Your task to perform on an android device: Open calendar and show me the third week of next month Image 0: 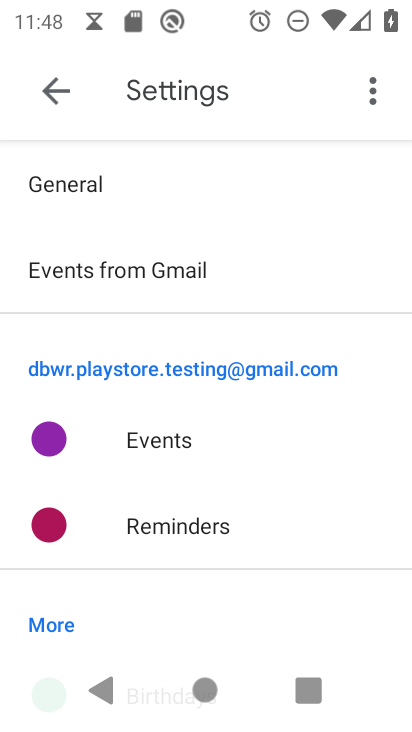
Step 0: press home button
Your task to perform on an android device: Open calendar and show me the third week of next month Image 1: 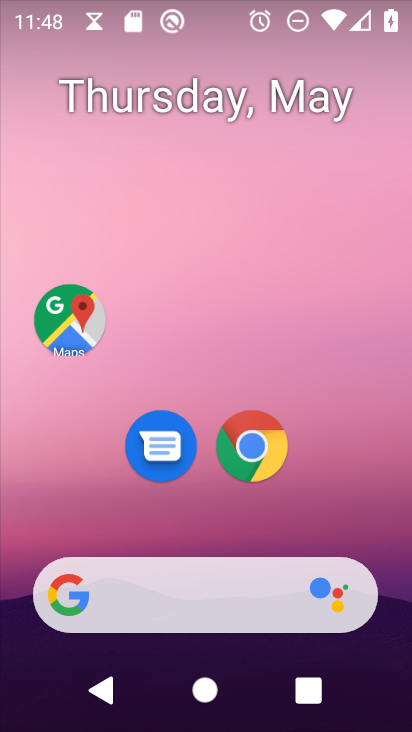
Step 1: drag from (280, 613) to (226, 297)
Your task to perform on an android device: Open calendar and show me the third week of next month Image 2: 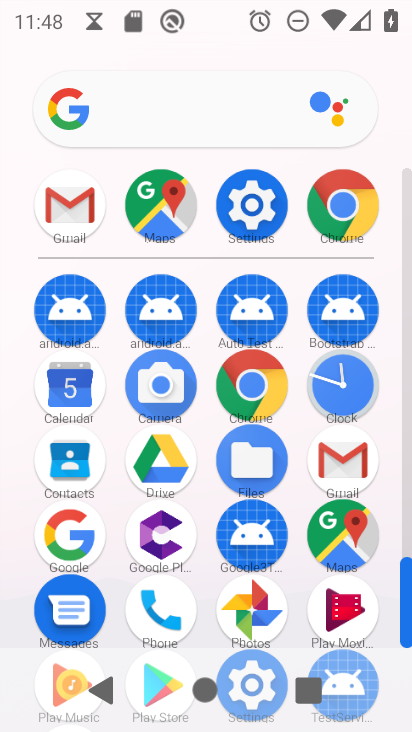
Step 2: click (55, 407)
Your task to perform on an android device: Open calendar and show me the third week of next month Image 3: 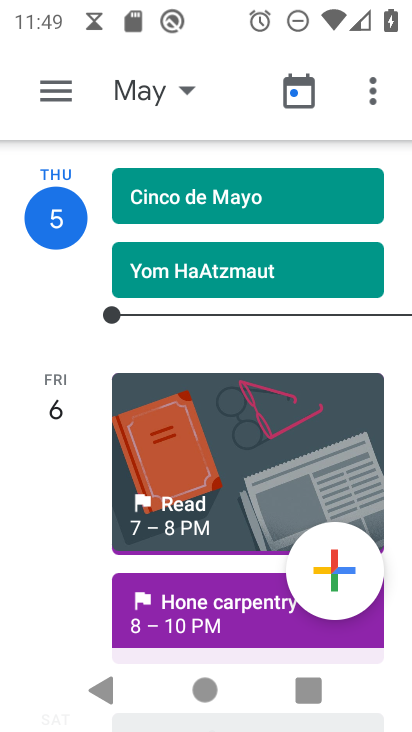
Step 3: click (30, 100)
Your task to perform on an android device: Open calendar and show me the third week of next month Image 4: 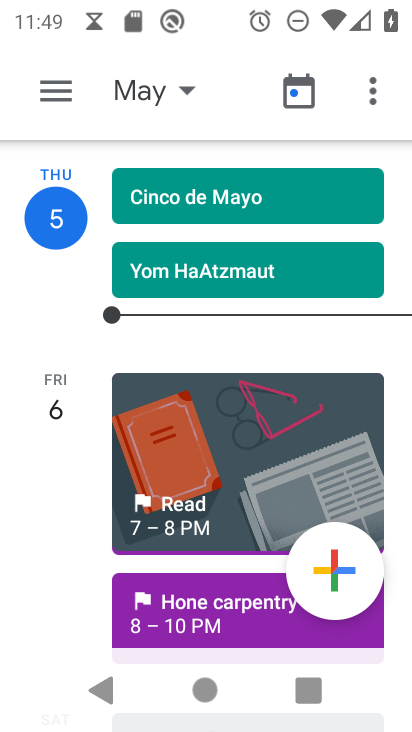
Step 4: click (68, 96)
Your task to perform on an android device: Open calendar and show me the third week of next month Image 5: 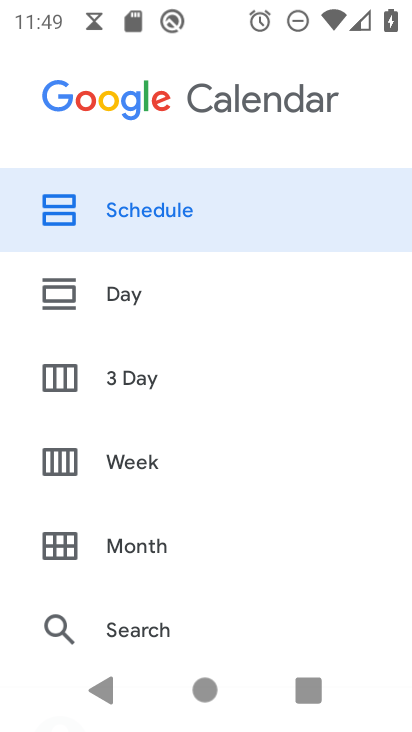
Step 5: click (140, 553)
Your task to perform on an android device: Open calendar and show me the third week of next month Image 6: 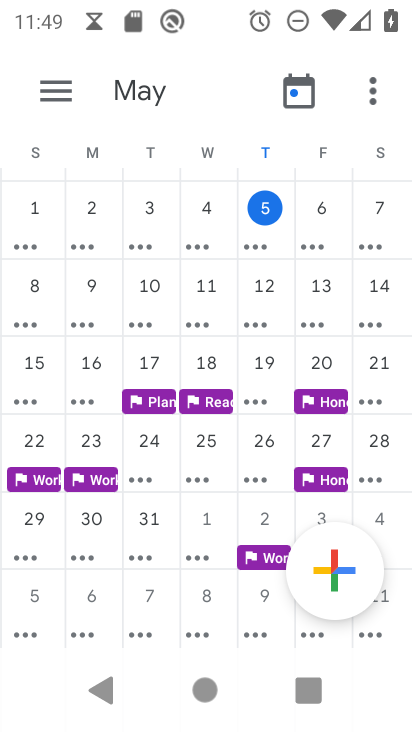
Step 6: drag from (380, 397) to (1, 499)
Your task to perform on an android device: Open calendar and show me the third week of next month Image 7: 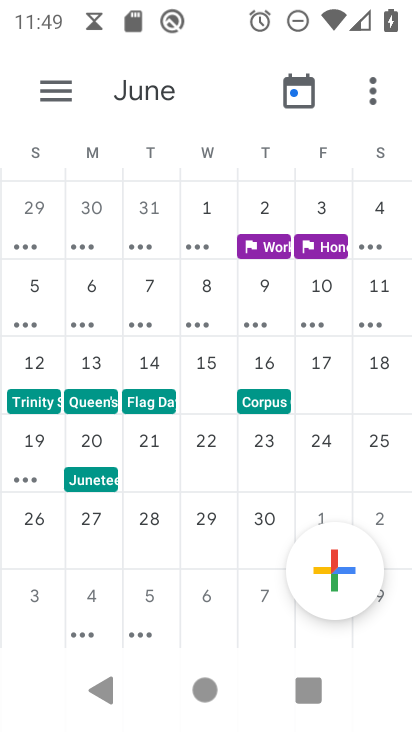
Step 7: click (90, 371)
Your task to perform on an android device: Open calendar and show me the third week of next month Image 8: 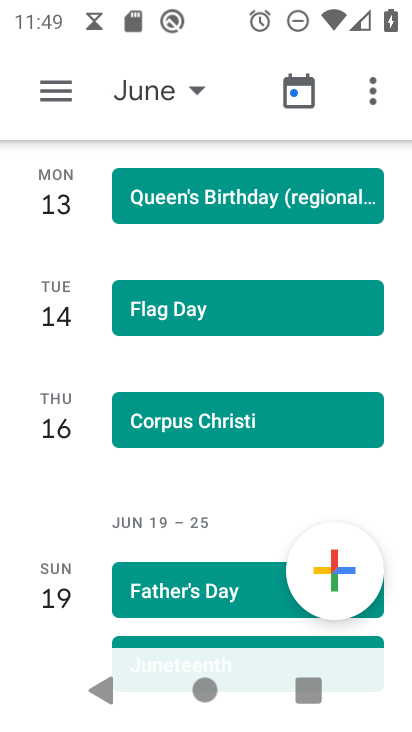
Step 8: task complete